Your task to perform on an android device: open the mobile data screen to see how much data has been used Image 0: 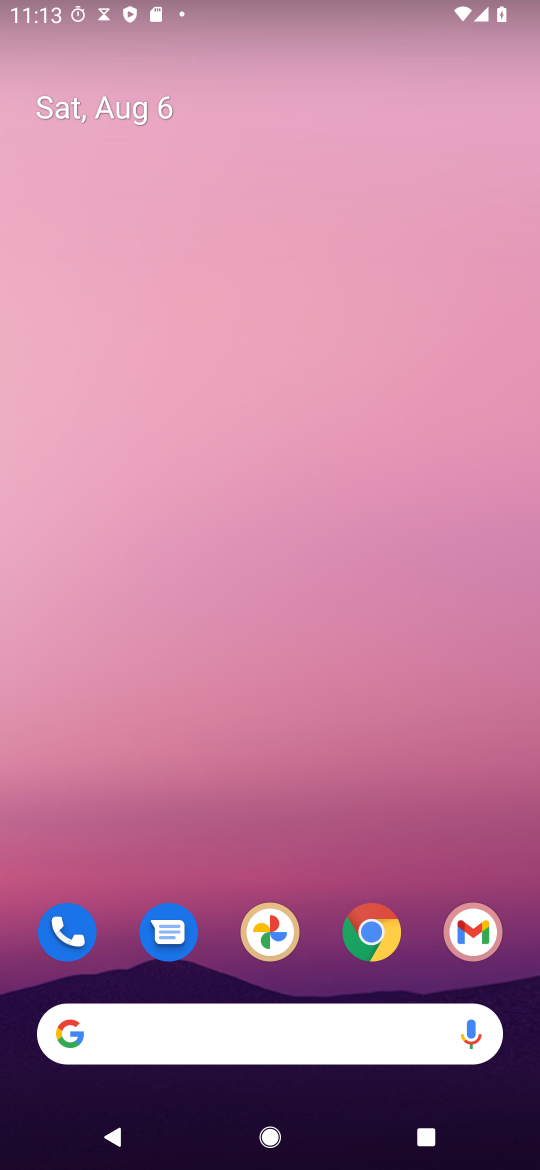
Step 0: drag from (187, 1026) to (152, 305)
Your task to perform on an android device: open the mobile data screen to see how much data has been used Image 1: 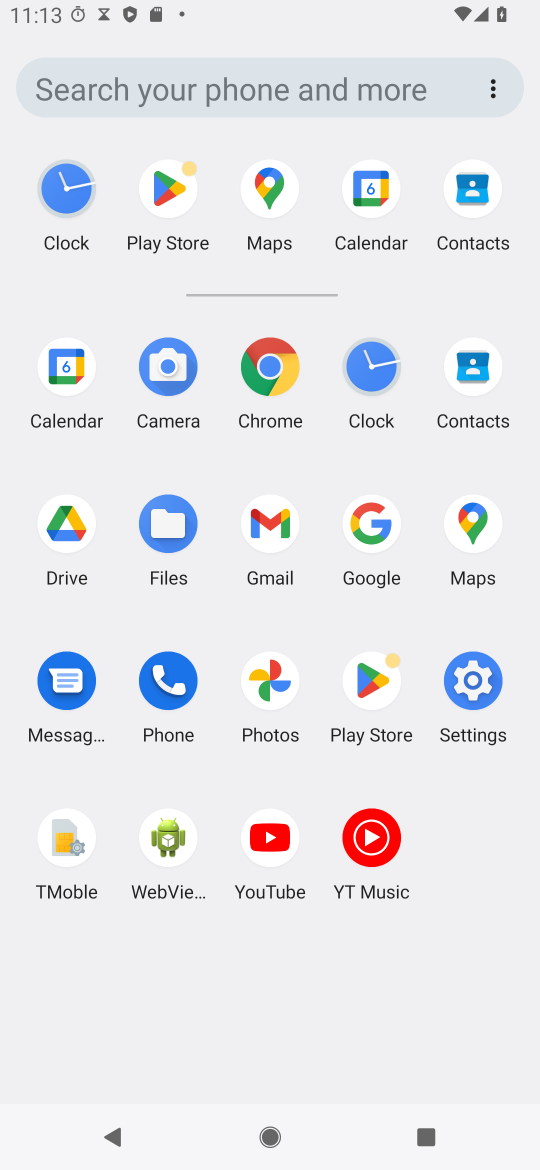
Step 1: click (468, 685)
Your task to perform on an android device: open the mobile data screen to see how much data has been used Image 2: 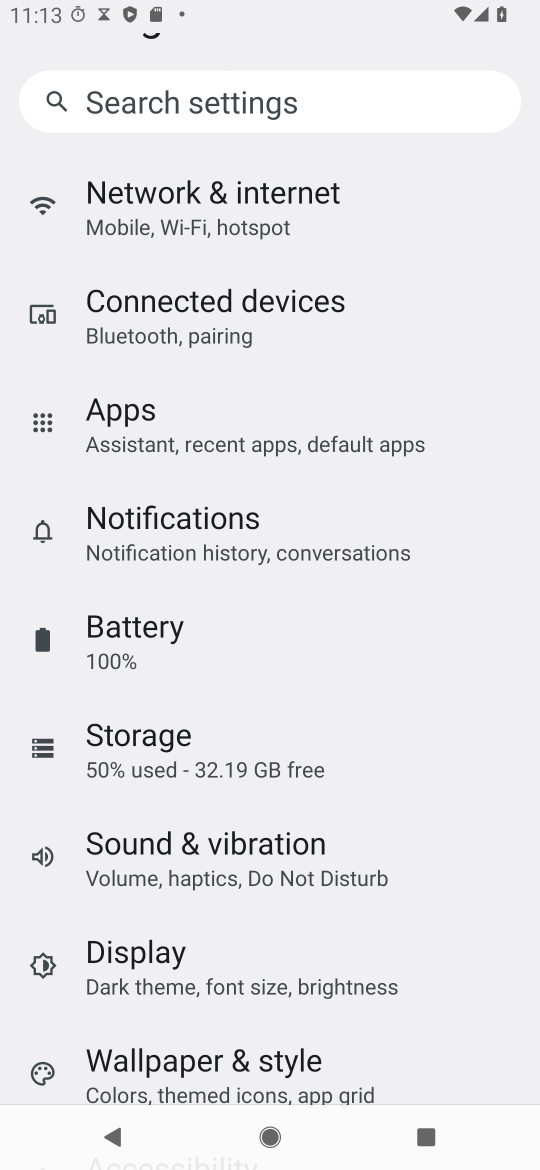
Step 2: click (215, 214)
Your task to perform on an android device: open the mobile data screen to see how much data has been used Image 3: 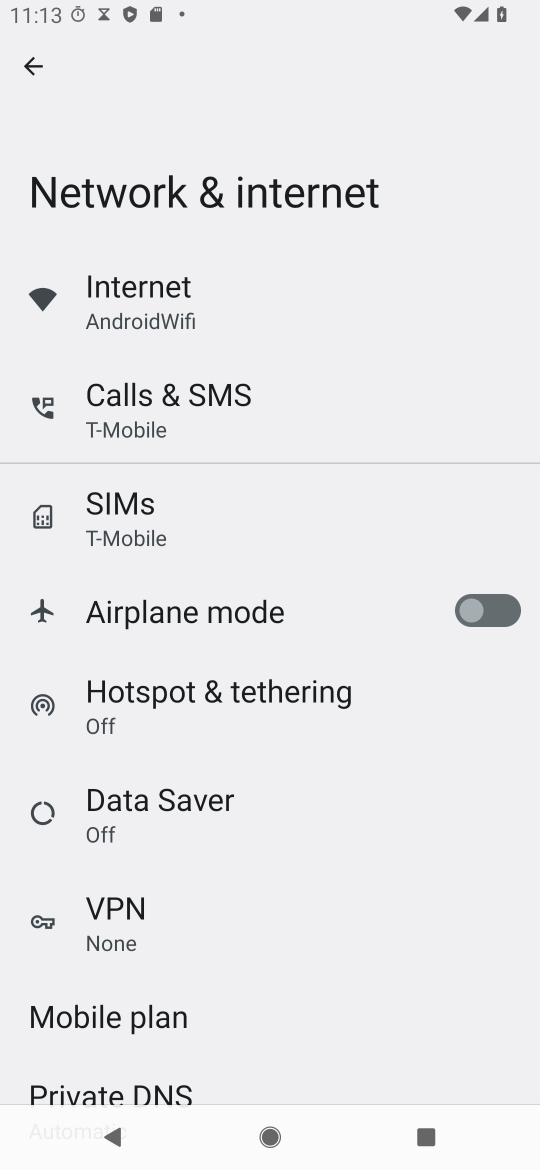
Step 3: click (162, 310)
Your task to perform on an android device: open the mobile data screen to see how much data has been used Image 4: 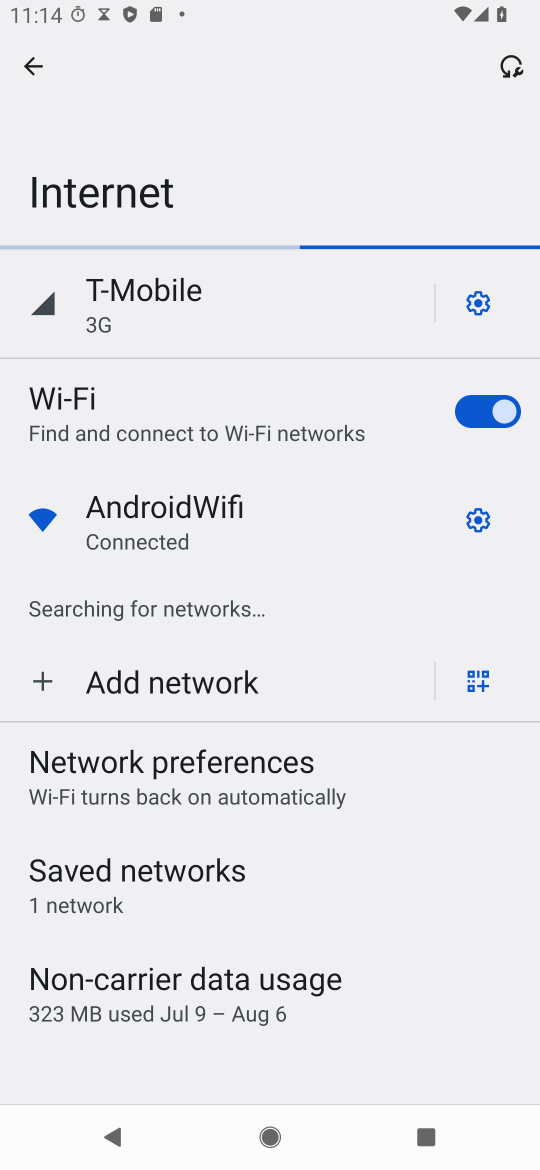
Step 4: click (474, 304)
Your task to perform on an android device: open the mobile data screen to see how much data has been used Image 5: 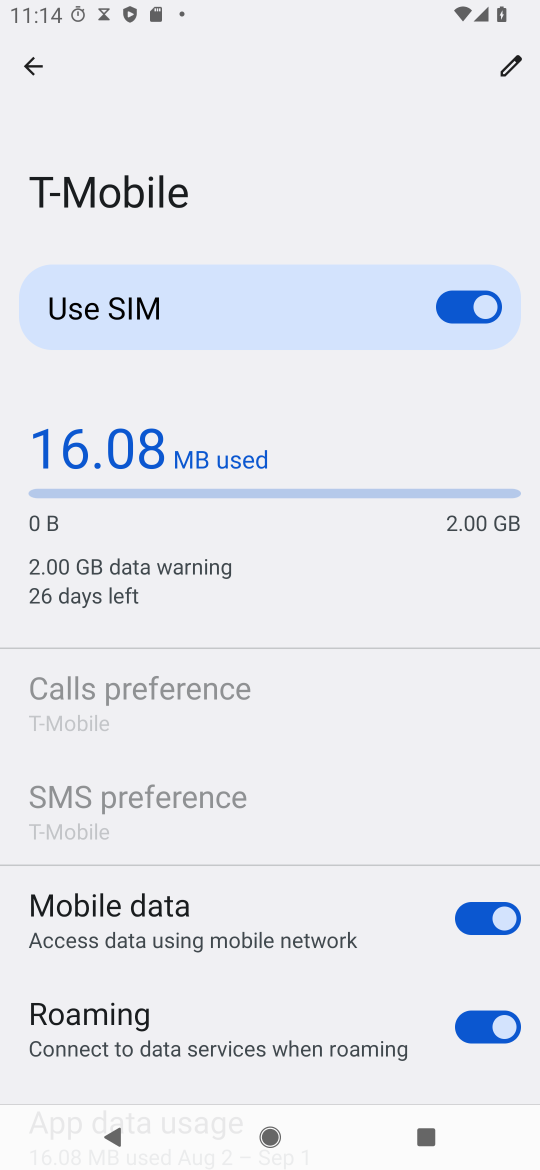
Step 5: task complete